Your task to perform on an android device: stop showing notifications on the lock screen Image 0: 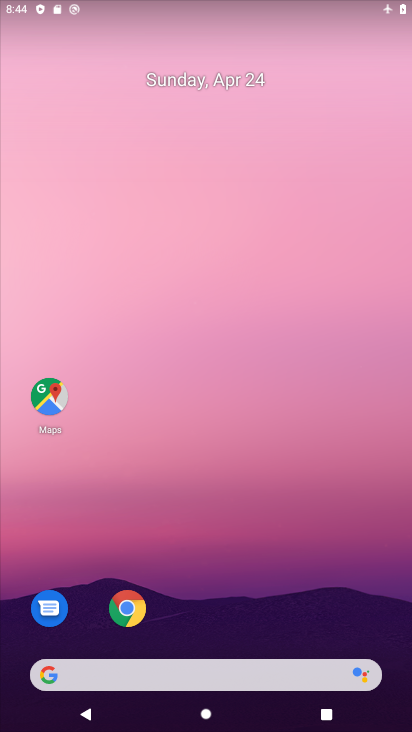
Step 0: drag from (207, 626) to (197, 133)
Your task to perform on an android device: stop showing notifications on the lock screen Image 1: 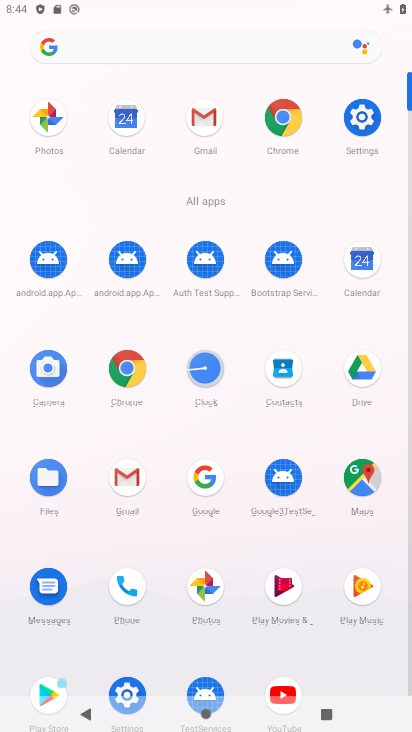
Step 1: click (358, 130)
Your task to perform on an android device: stop showing notifications on the lock screen Image 2: 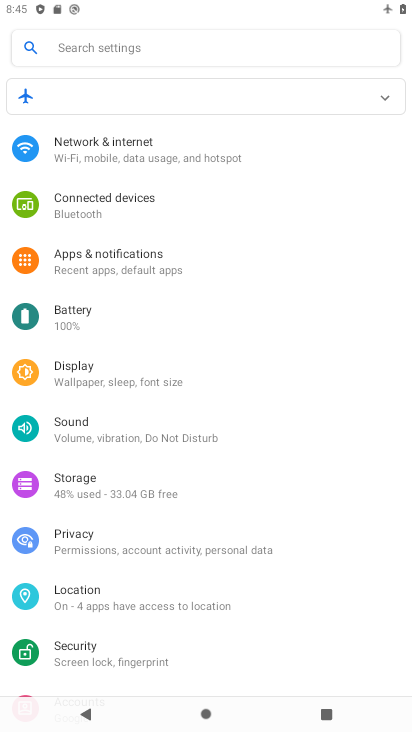
Step 2: click (150, 269)
Your task to perform on an android device: stop showing notifications on the lock screen Image 3: 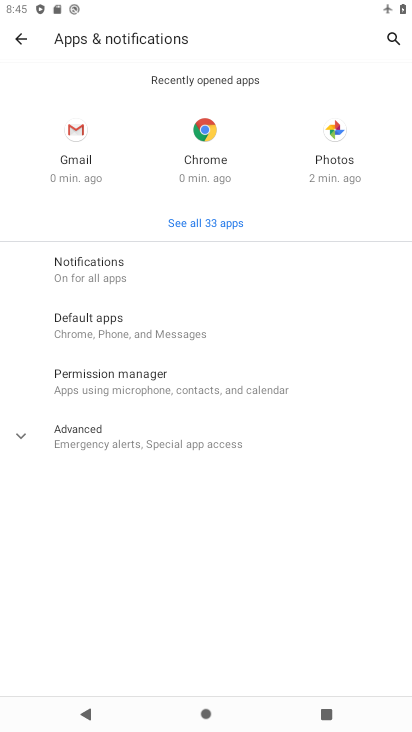
Step 3: click (150, 269)
Your task to perform on an android device: stop showing notifications on the lock screen Image 4: 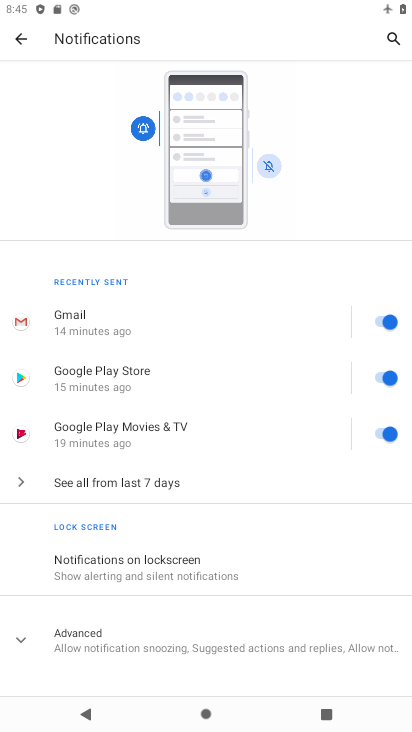
Step 4: click (263, 574)
Your task to perform on an android device: stop showing notifications on the lock screen Image 5: 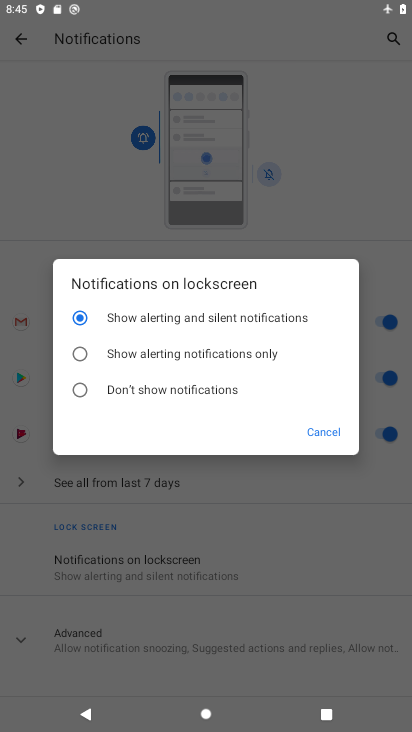
Step 5: click (191, 391)
Your task to perform on an android device: stop showing notifications on the lock screen Image 6: 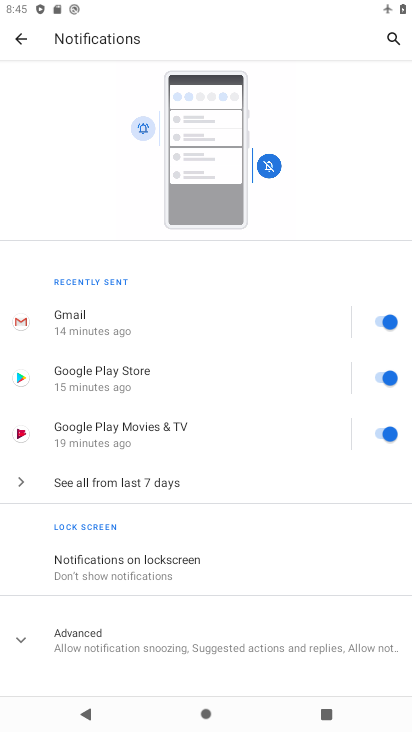
Step 6: task complete